Your task to perform on an android device: Open Reddit.com Image 0: 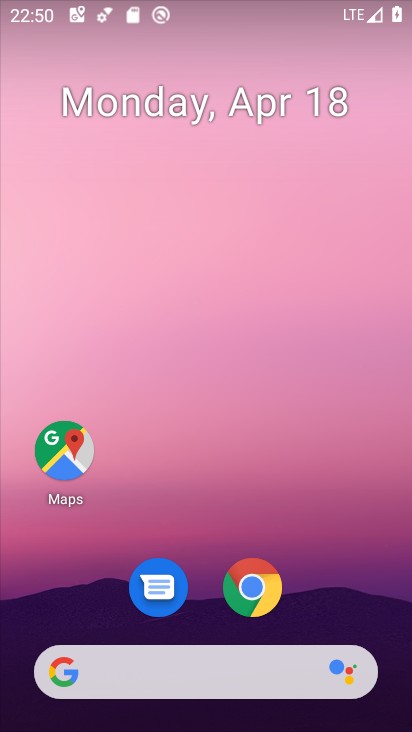
Step 0: click (271, 582)
Your task to perform on an android device: Open Reddit.com Image 1: 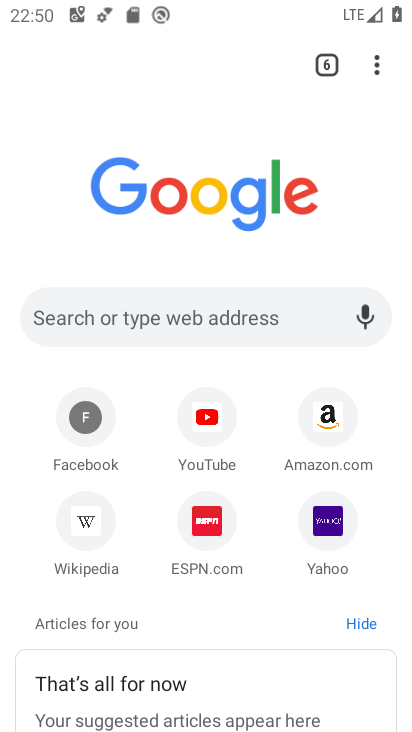
Step 1: click (225, 318)
Your task to perform on an android device: Open Reddit.com Image 2: 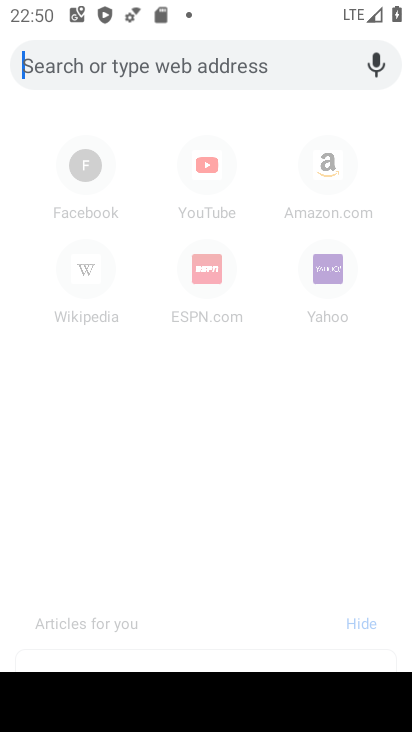
Step 2: type "reddit.com"
Your task to perform on an android device: Open Reddit.com Image 3: 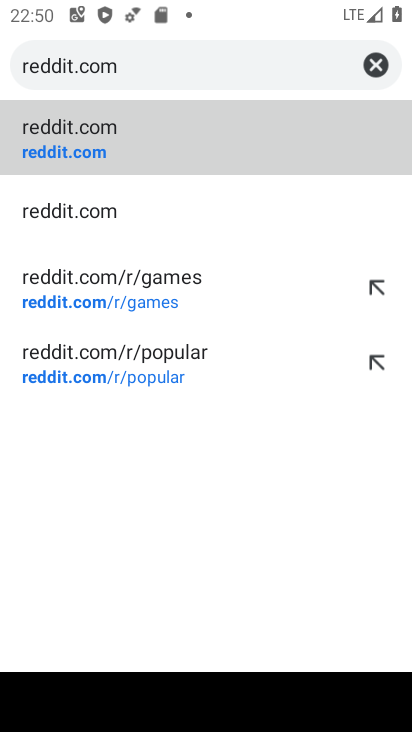
Step 3: click (66, 157)
Your task to perform on an android device: Open Reddit.com Image 4: 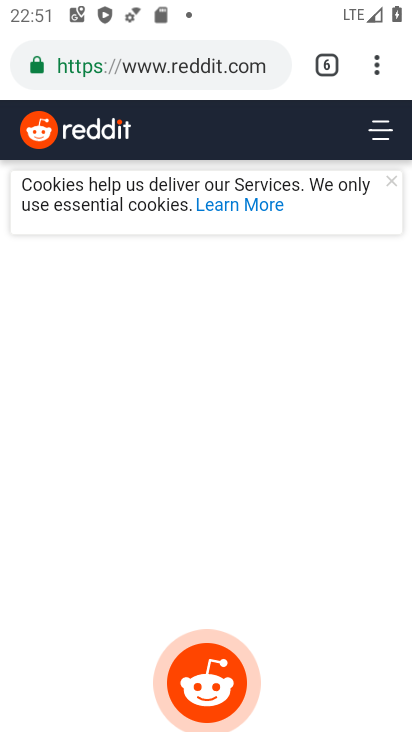
Step 4: task complete